Your task to perform on an android device: Go to sound settings Image 0: 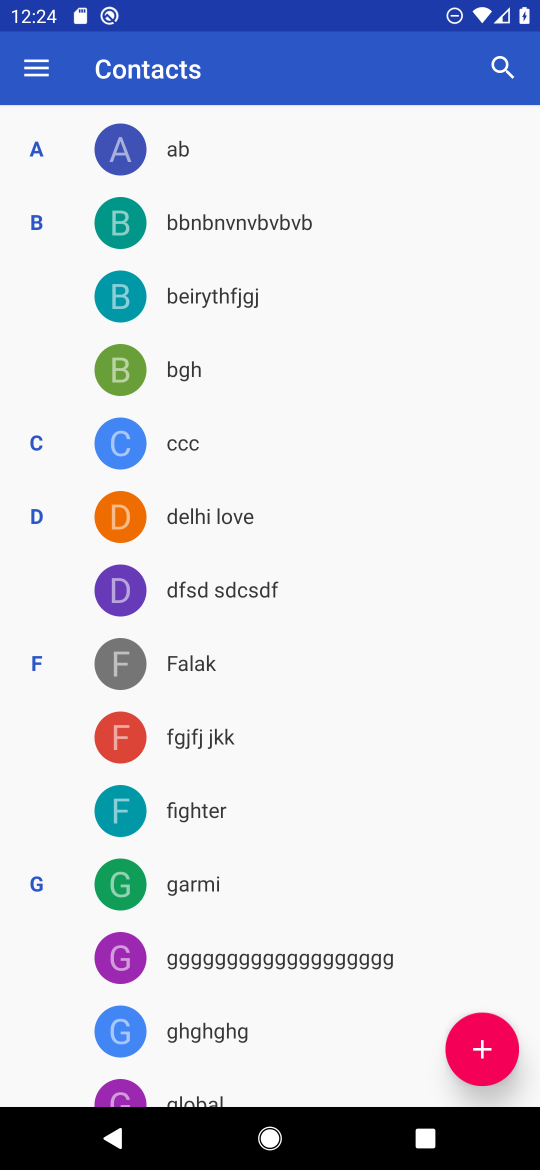
Step 0: press home button
Your task to perform on an android device: Go to sound settings Image 1: 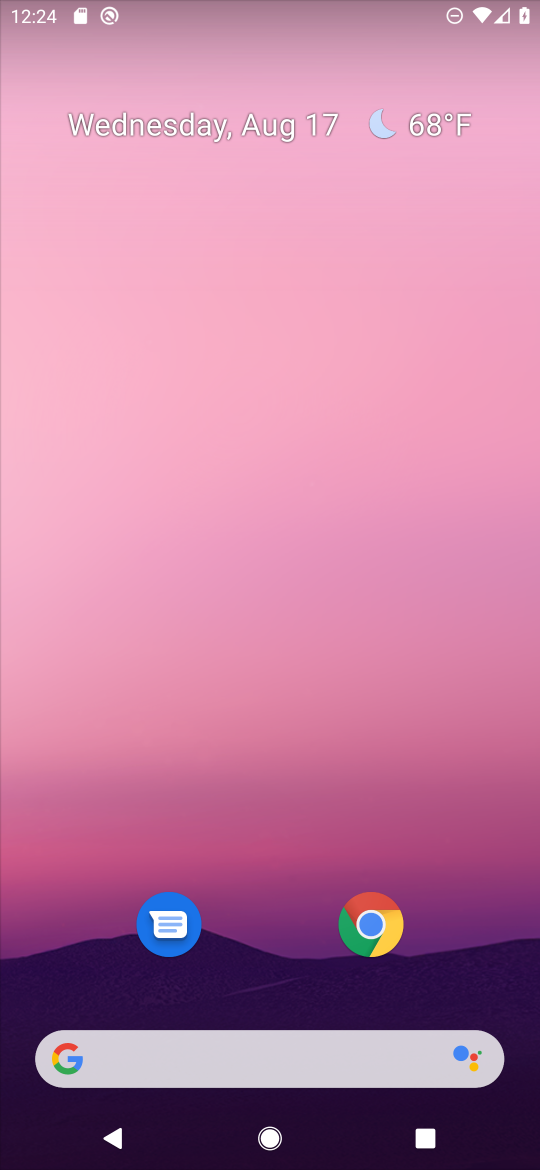
Step 1: drag from (276, 964) to (201, 43)
Your task to perform on an android device: Go to sound settings Image 2: 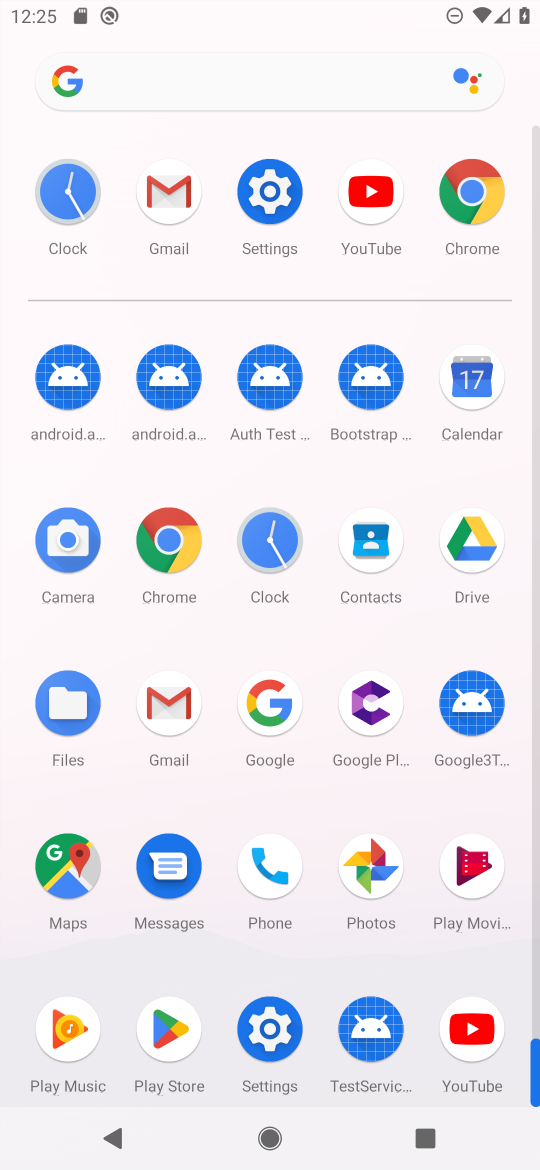
Step 2: click (285, 190)
Your task to perform on an android device: Go to sound settings Image 3: 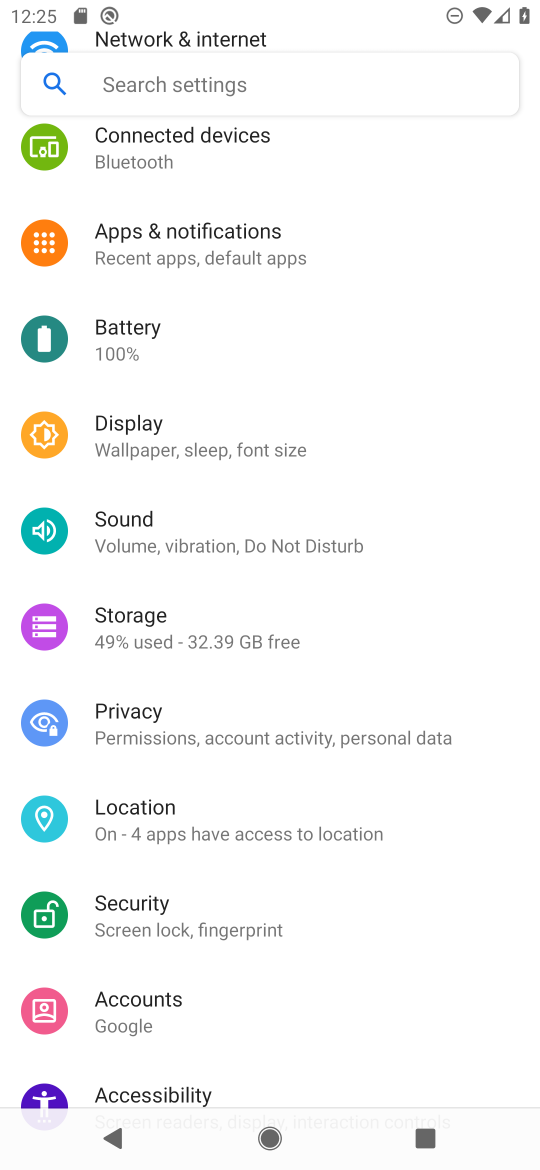
Step 3: click (229, 523)
Your task to perform on an android device: Go to sound settings Image 4: 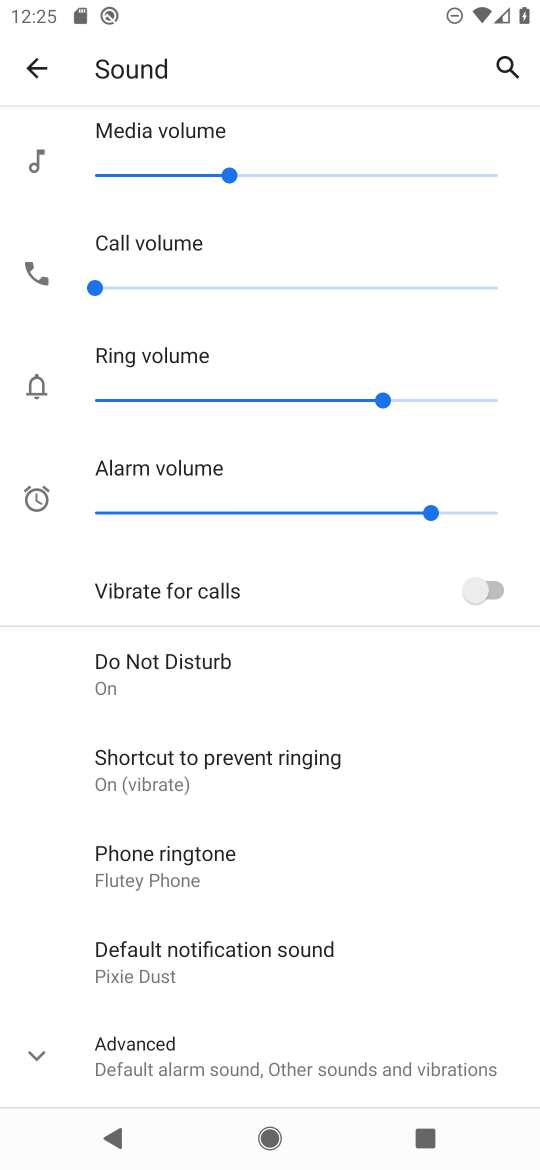
Step 4: task complete